Your task to perform on an android device: turn notification dots on Image 0: 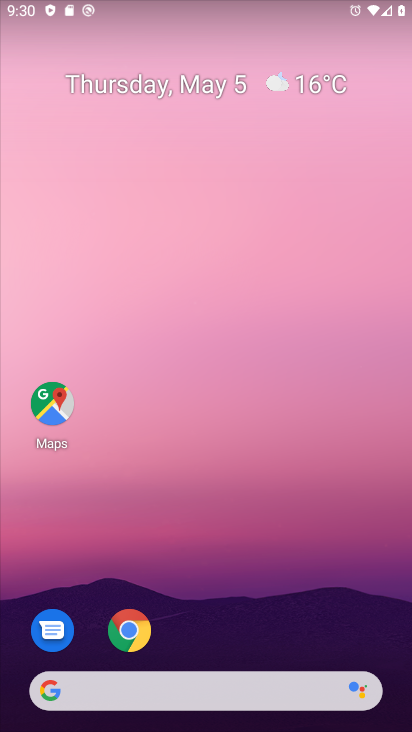
Step 0: drag from (259, 471) to (250, 149)
Your task to perform on an android device: turn notification dots on Image 1: 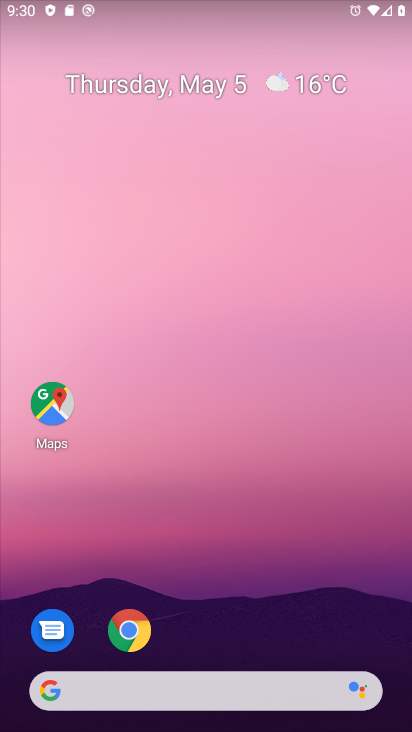
Step 1: drag from (236, 601) to (240, 153)
Your task to perform on an android device: turn notification dots on Image 2: 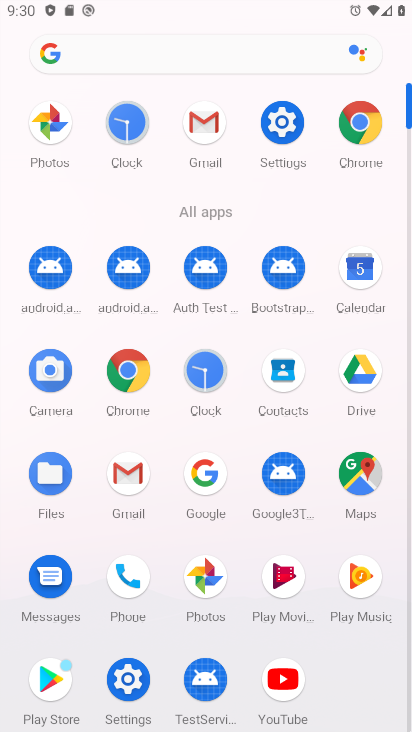
Step 2: click (279, 131)
Your task to perform on an android device: turn notification dots on Image 3: 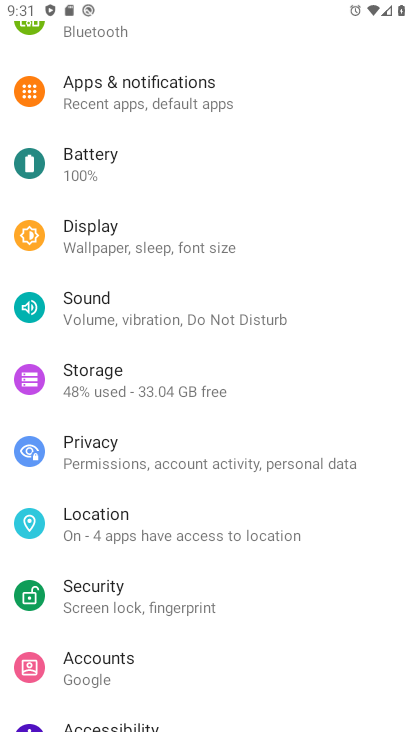
Step 3: click (181, 93)
Your task to perform on an android device: turn notification dots on Image 4: 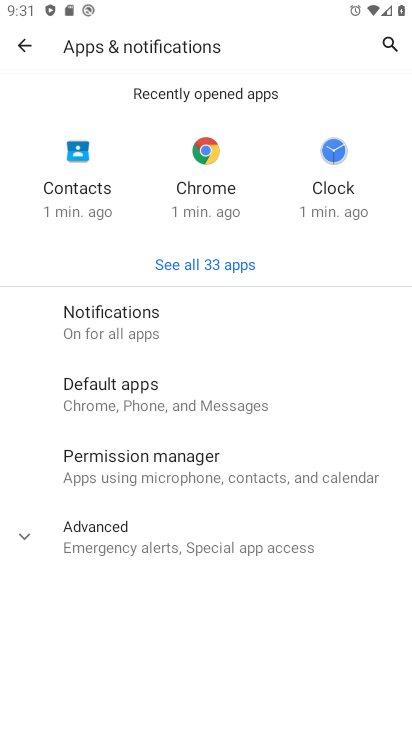
Step 4: click (86, 333)
Your task to perform on an android device: turn notification dots on Image 5: 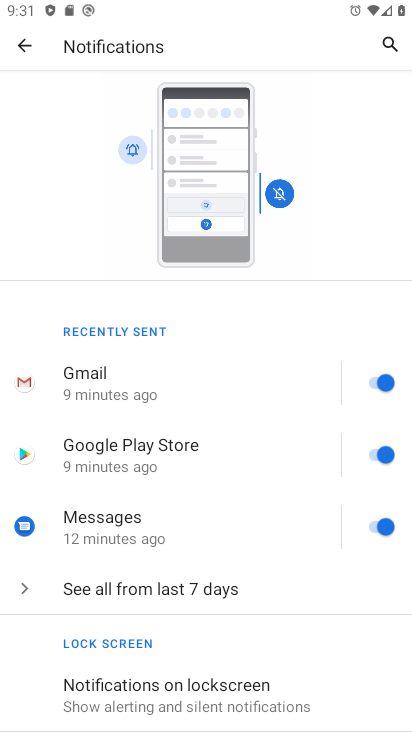
Step 5: drag from (152, 642) to (144, 248)
Your task to perform on an android device: turn notification dots on Image 6: 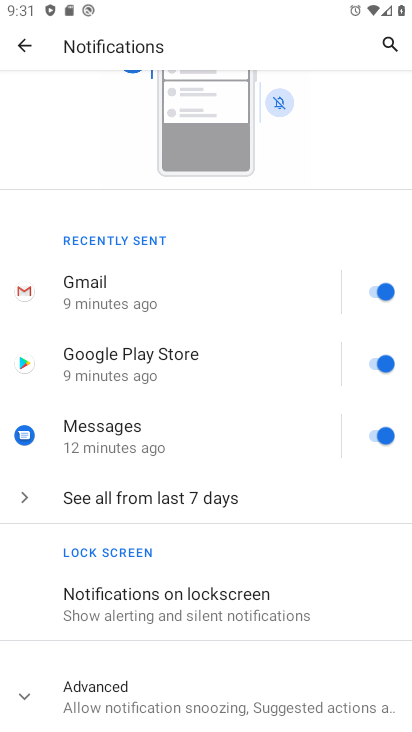
Step 6: click (21, 693)
Your task to perform on an android device: turn notification dots on Image 7: 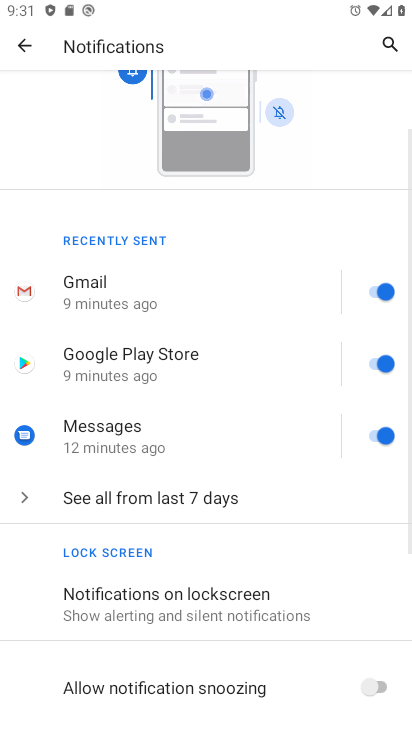
Step 7: task complete